Your task to perform on an android device: install app "Instagram" Image 0: 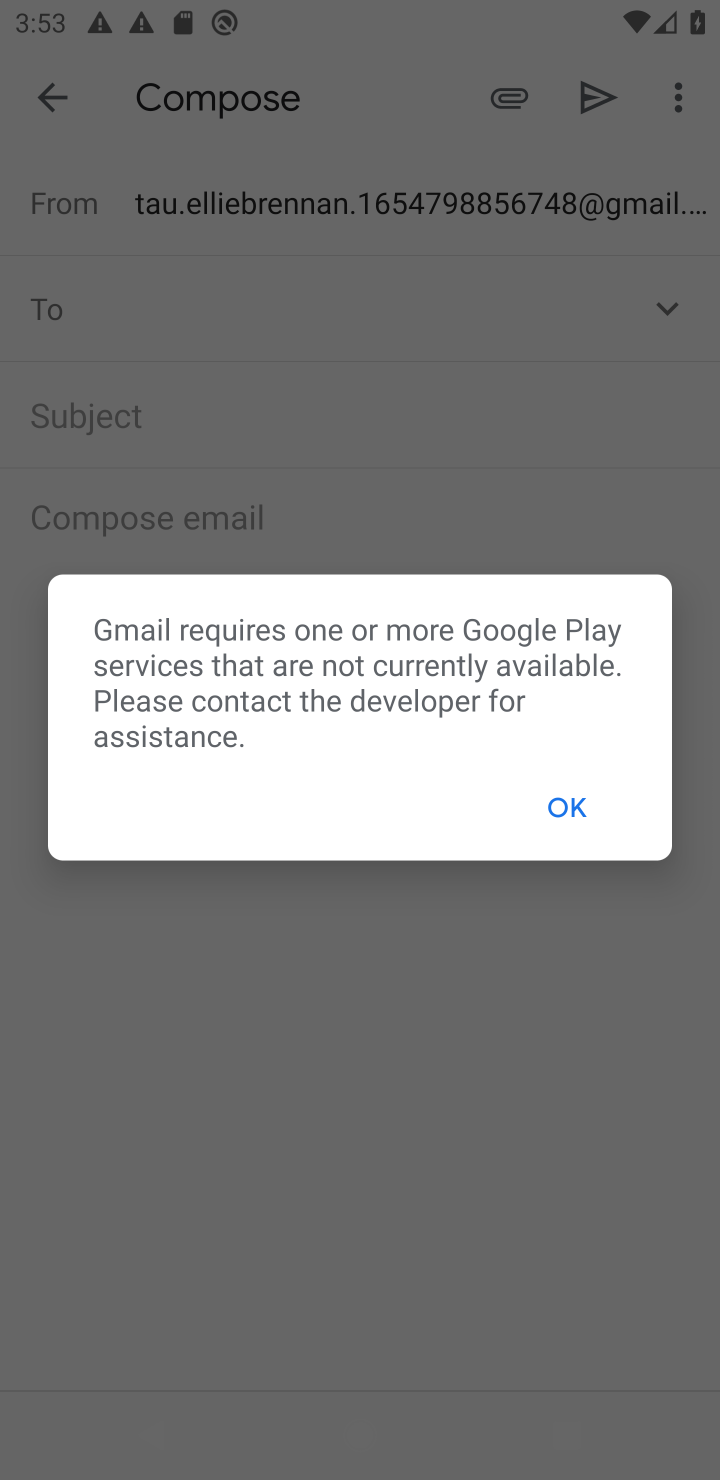
Step 0: press home button
Your task to perform on an android device: install app "Instagram" Image 1: 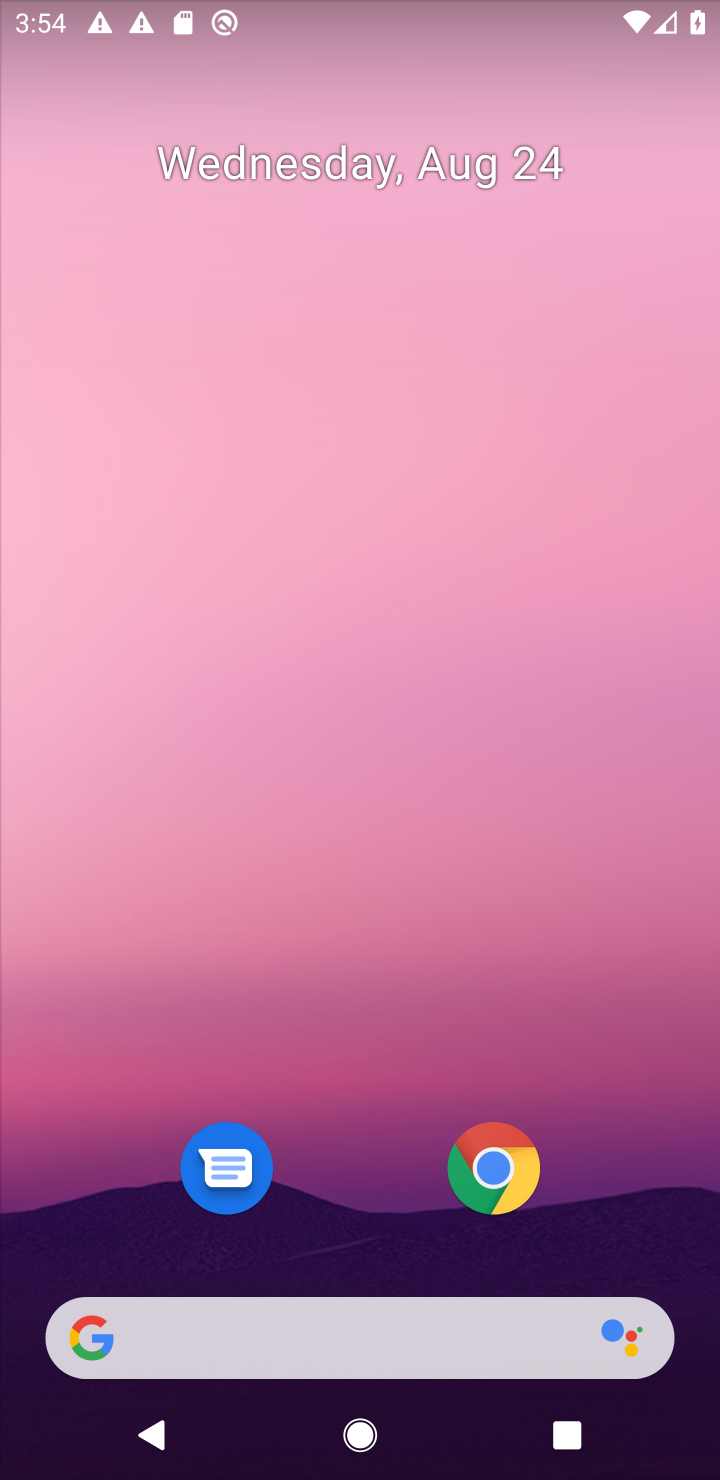
Step 1: drag from (693, 1256) to (614, 29)
Your task to perform on an android device: install app "Instagram" Image 2: 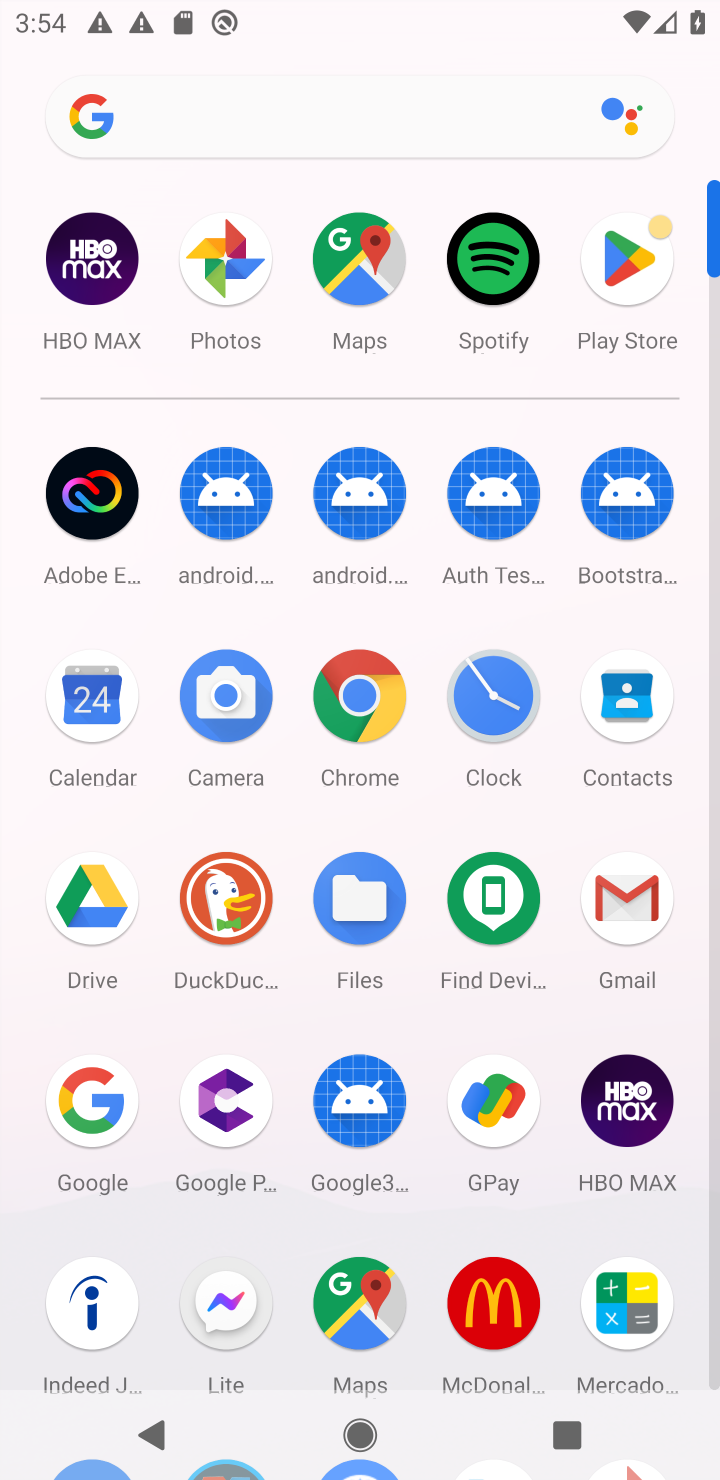
Step 2: click (719, 1357)
Your task to perform on an android device: install app "Instagram" Image 3: 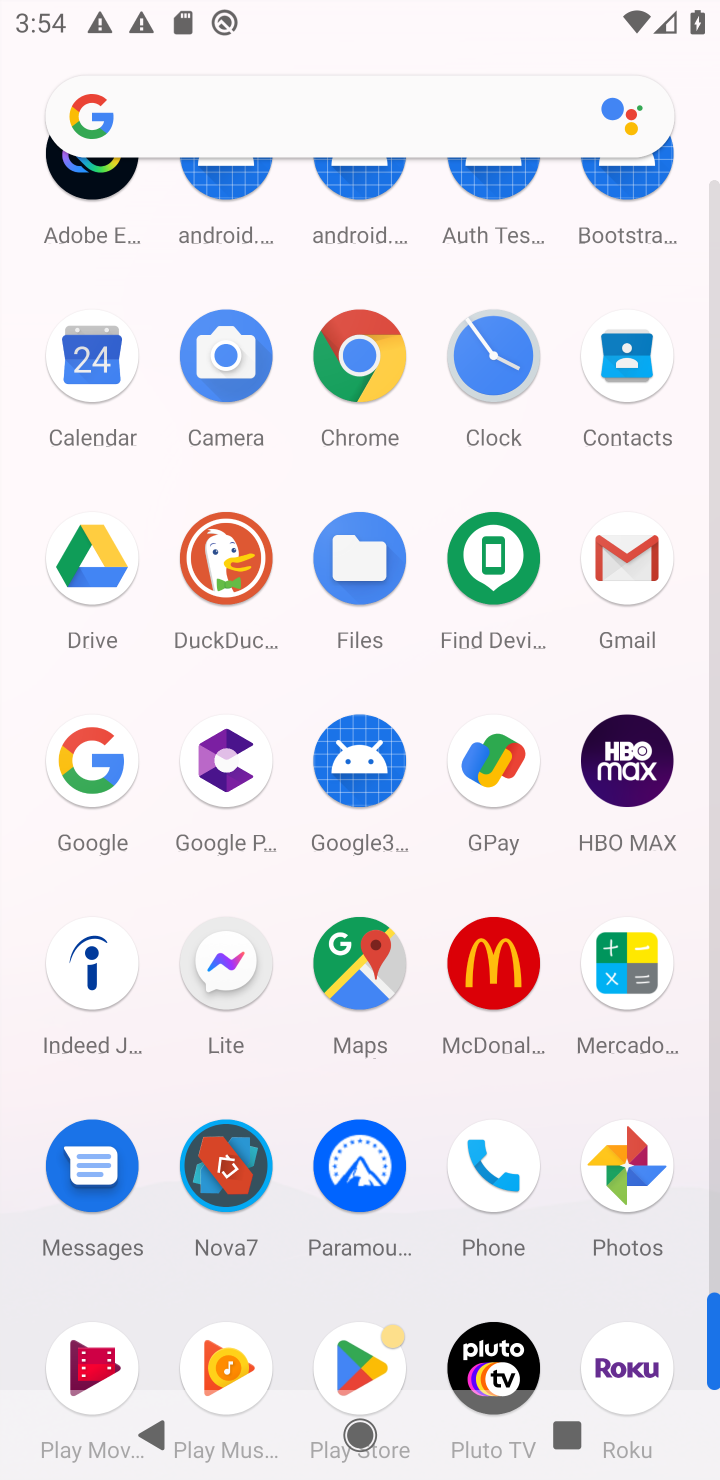
Step 3: click (363, 1363)
Your task to perform on an android device: install app "Instagram" Image 4: 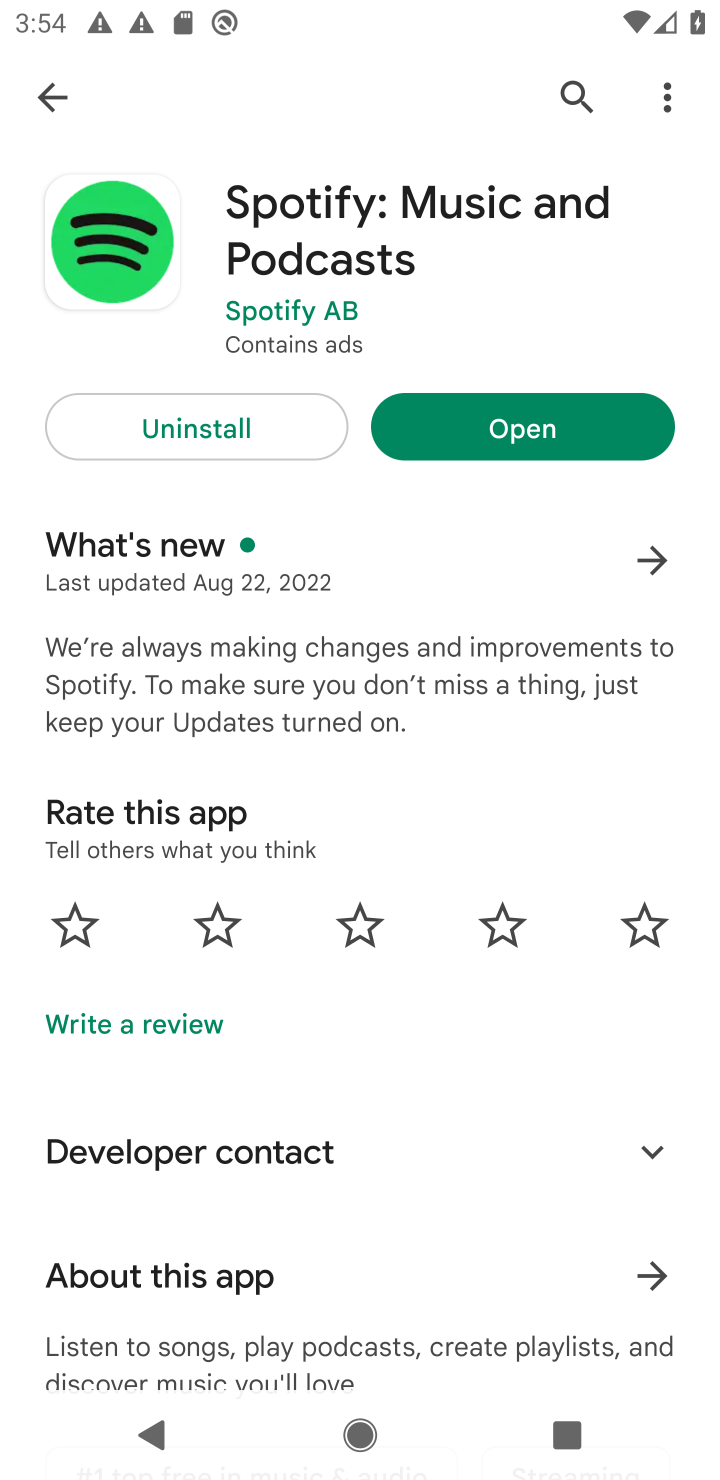
Step 4: click (572, 89)
Your task to perform on an android device: install app "Instagram" Image 5: 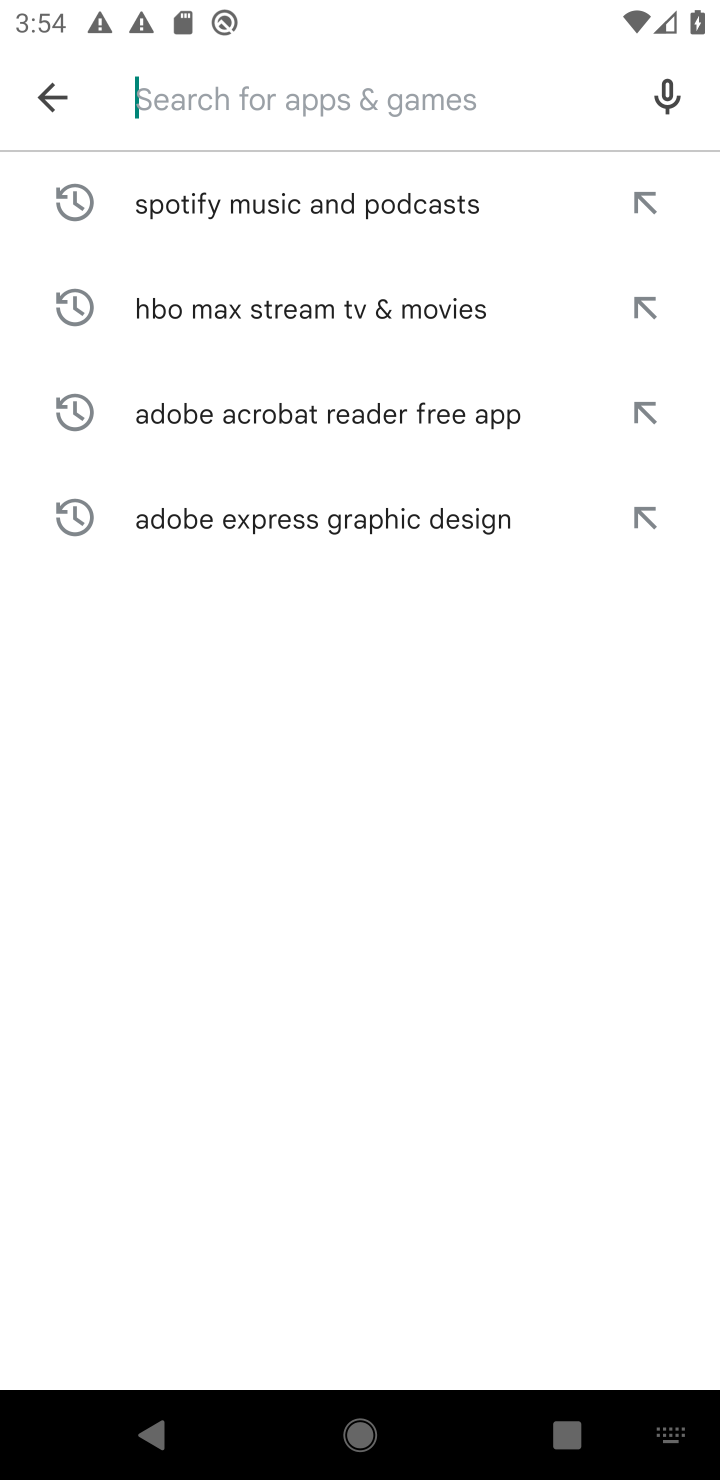
Step 5: type "Instagram"
Your task to perform on an android device: install app "Instagram" Image 6: 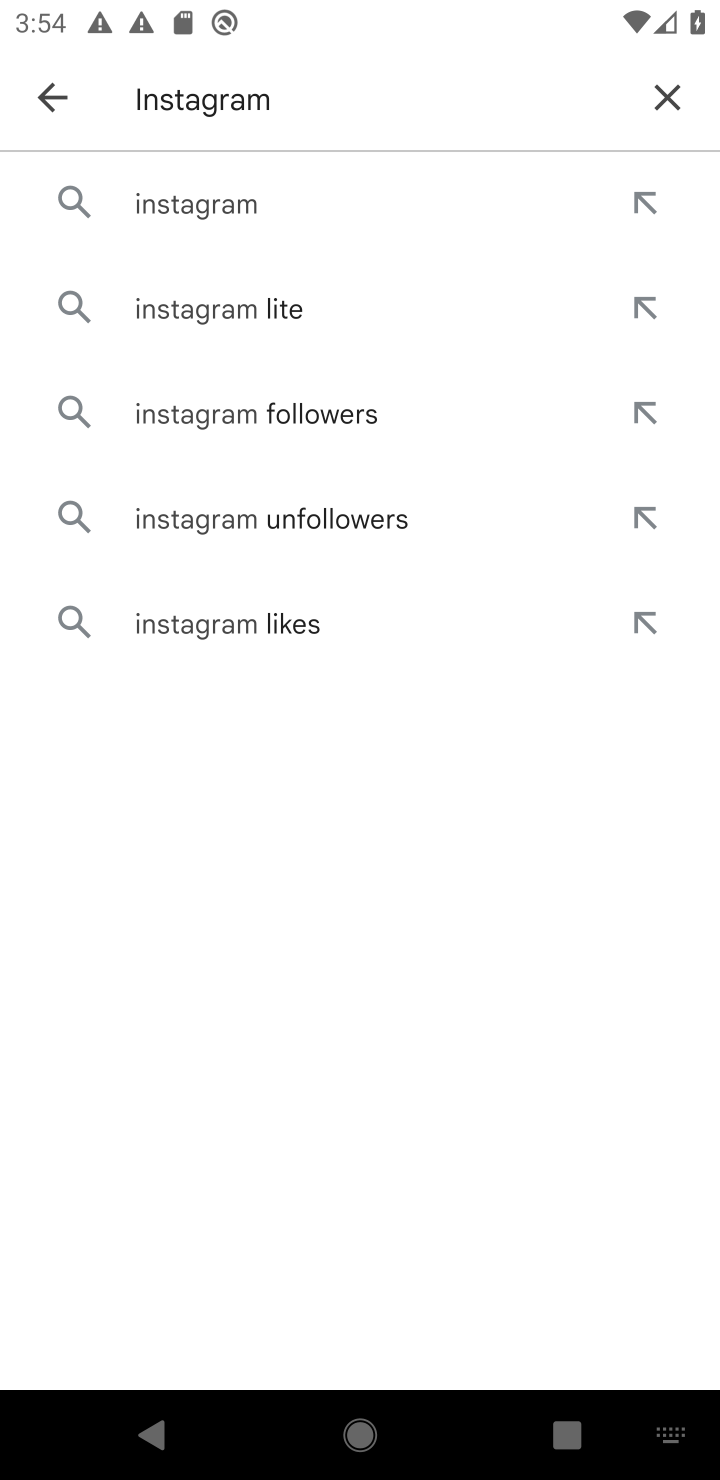
Step 6: click (193, 196)
Your task to perform on an android device: install app "Instagram" Image 7: 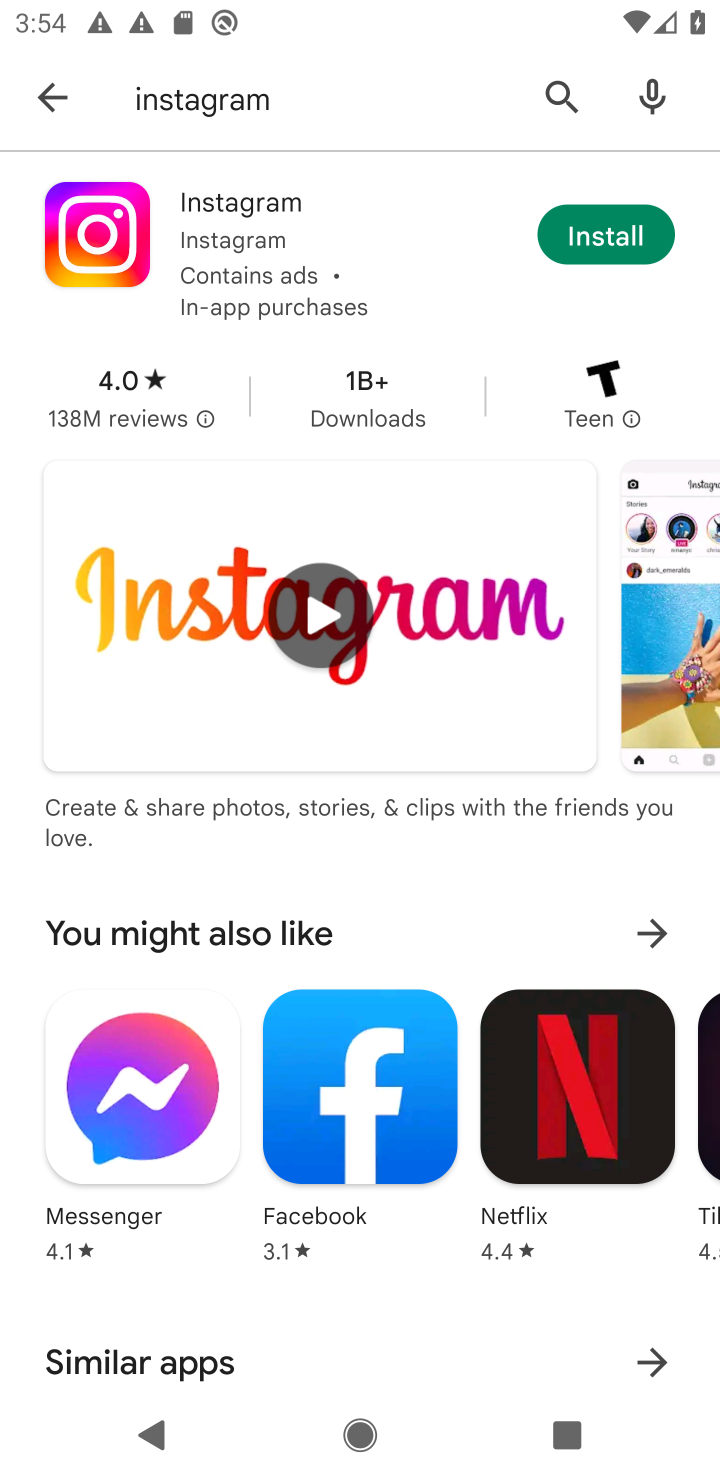
Step 7: click (225, 217)
Your task to perform on an android device: install app "Instagram" Image 8: 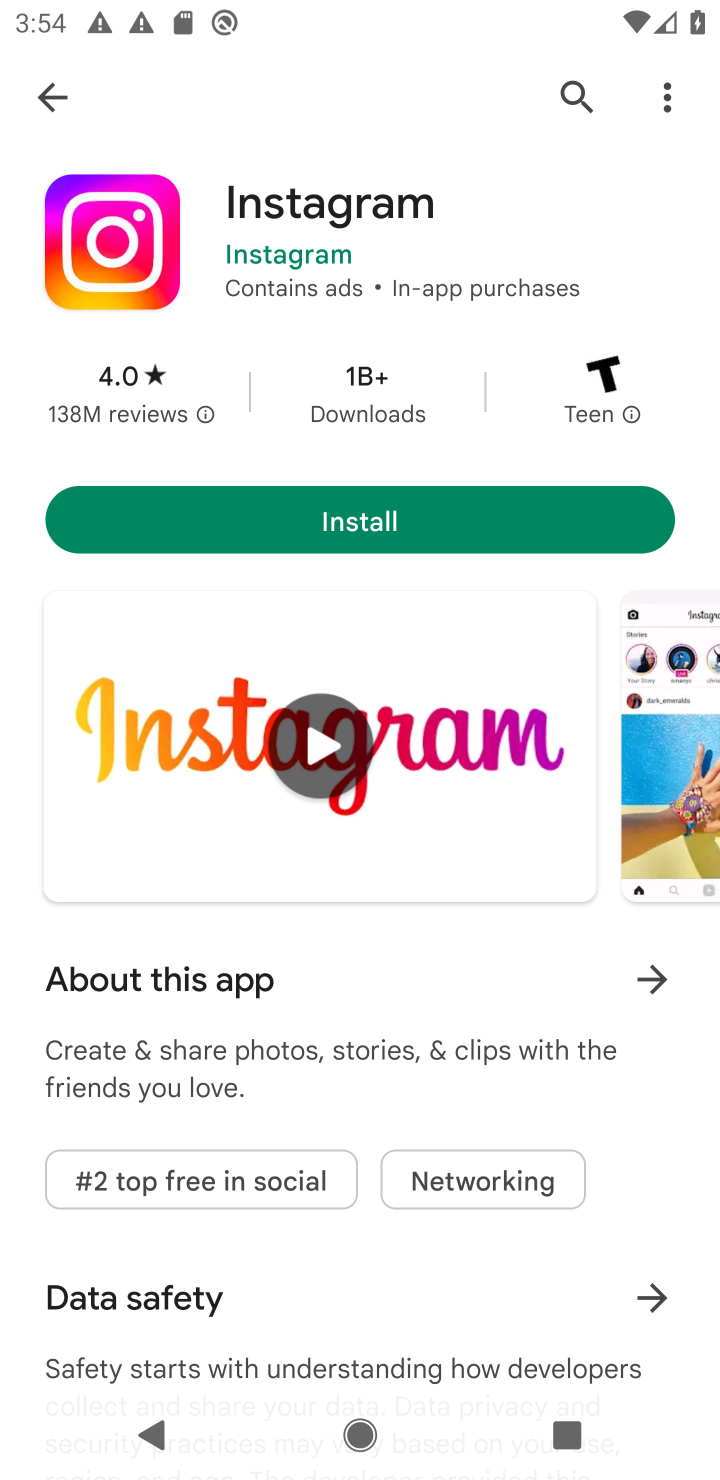
Step 8: click (360, 526)
Your task to perform on an android device: install app "Instagram" Image 9: 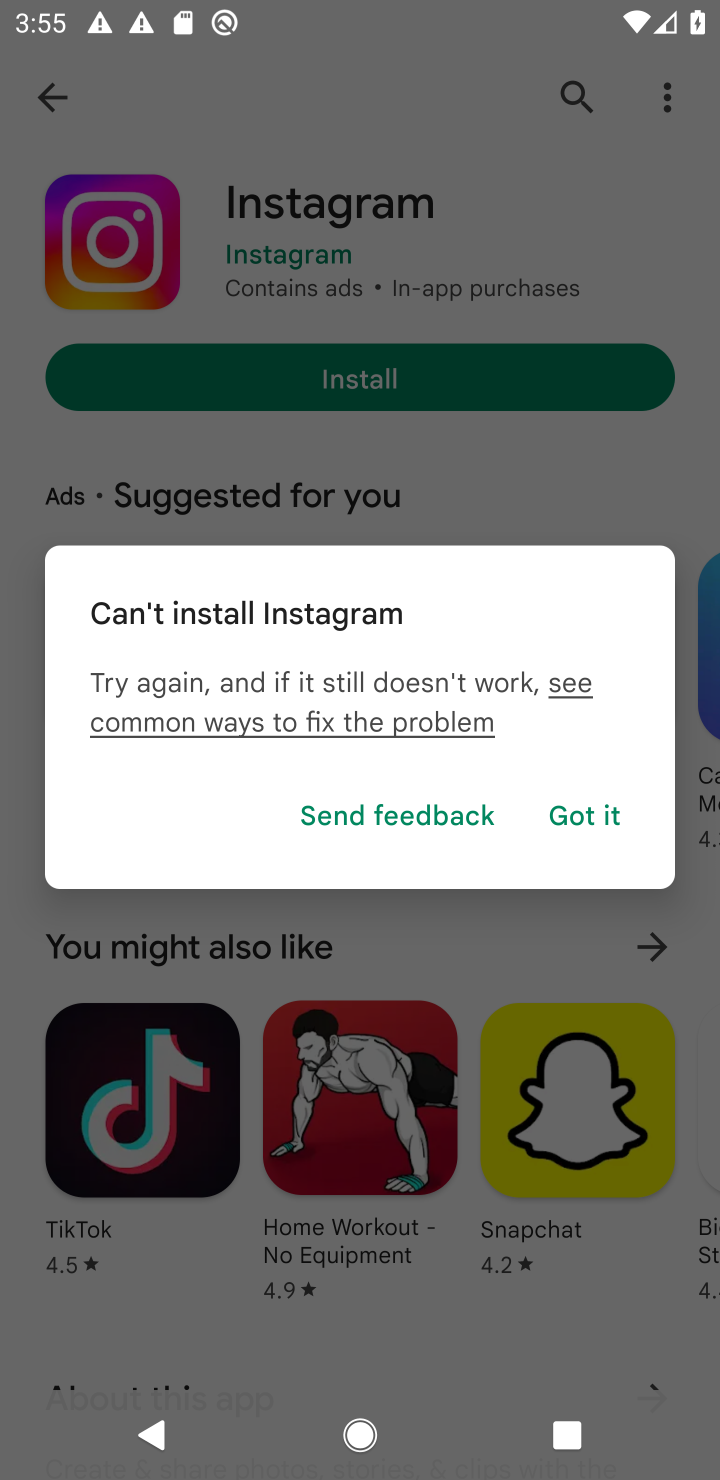
Step 9: click (590, 808)
Your task to perform on an android device: install app "Instagram" Image 10: 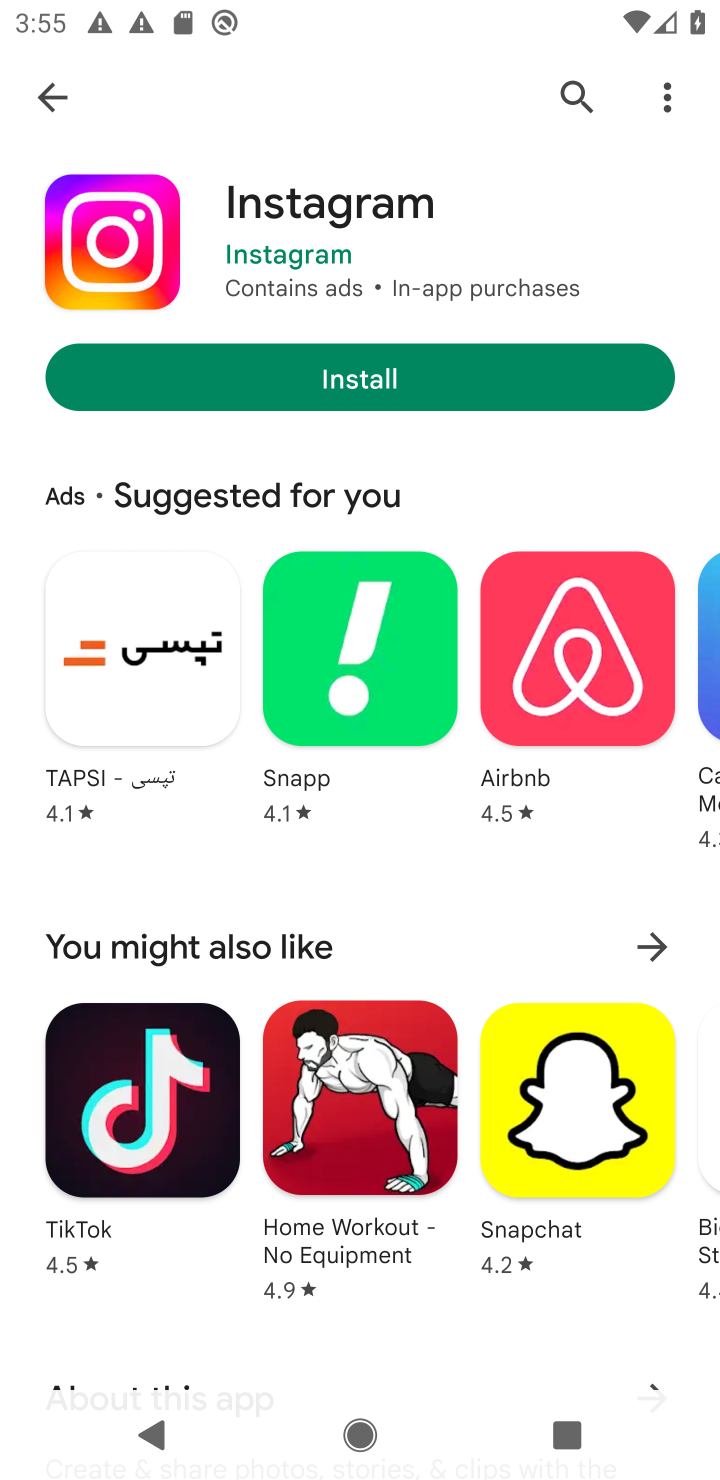
Step 10: task complete